Your task to perform on an android device: set the stopwatch Image 0: 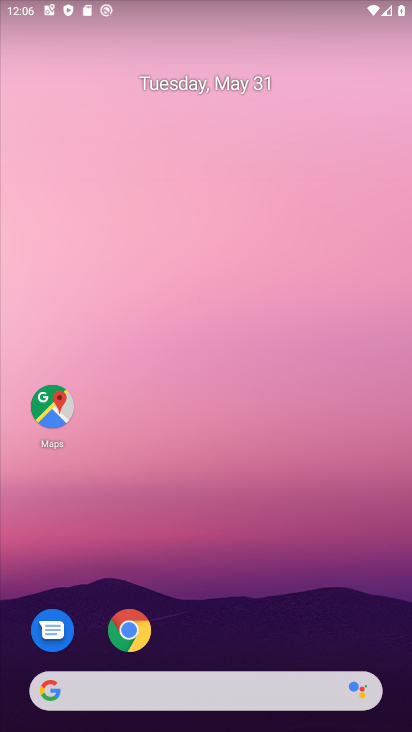
Step 0: press home button
Your task to perform on an android device: set the stopwatch Image 1: 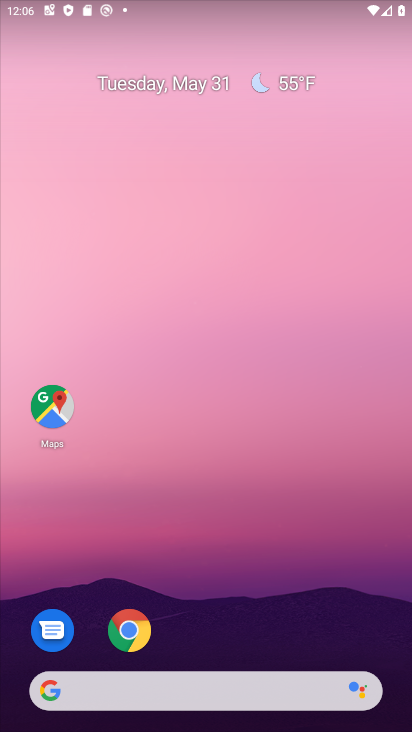
Step 1: drag from (169, 693) to (265, 153)
Your task to perform on an android device: set the stopwatch Image 2: 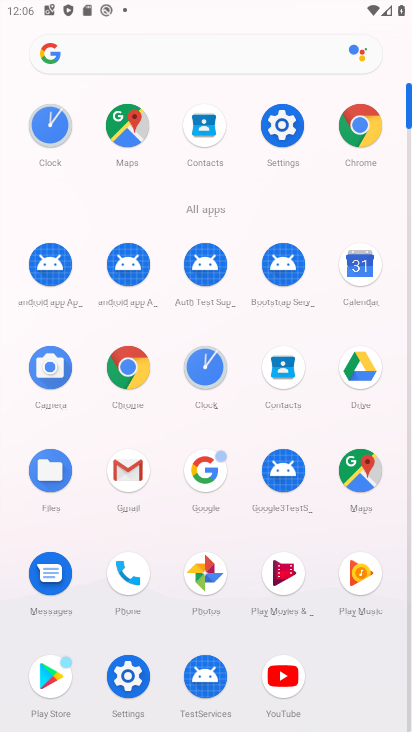
Step 2: click (197, 371)
Your task to perform on an android device: set the stopwatch Image 3: 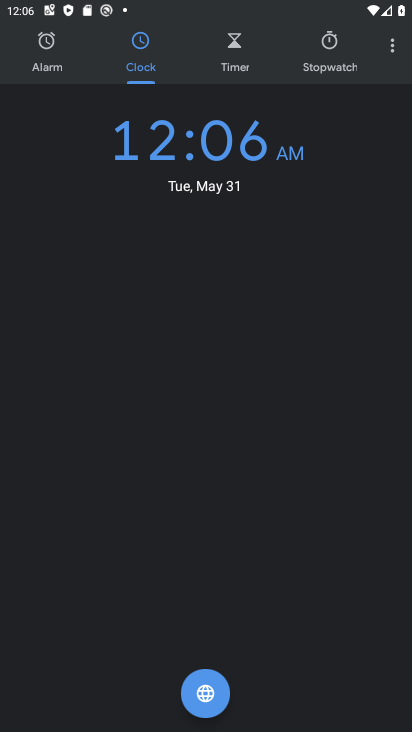
Step 3: click (328, 50)
Your task to perform on an android device: set the stopwatch Image 4: 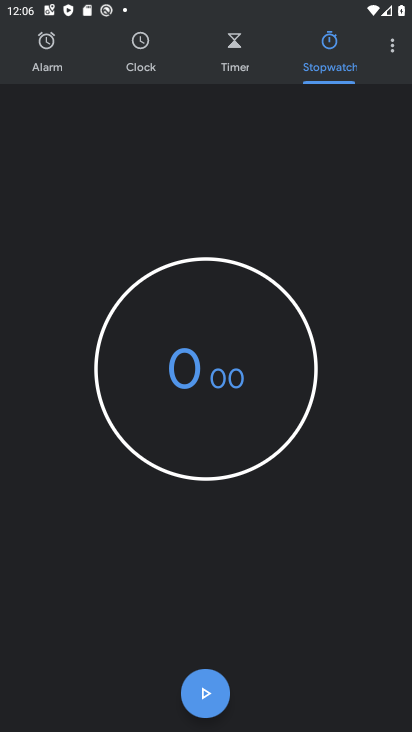
Step 4: click (215, 384)
Your task to perform on an android device: set the stopwatch Image 5: 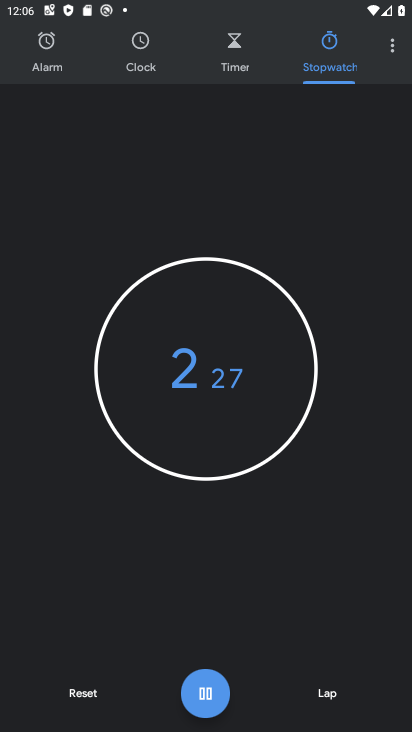
Step 5: click (215, 384)
Your task to perform on an android device: set the stopwatch Image 6: 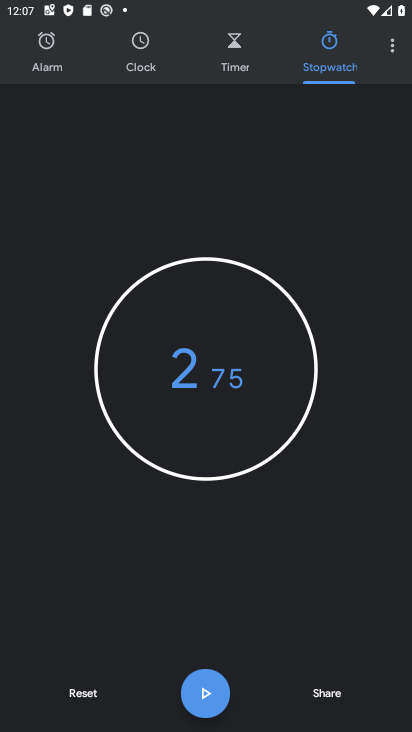
Step 6: task complete